Your task to perform on an android device: snooze an email in the gmail app Image 0: 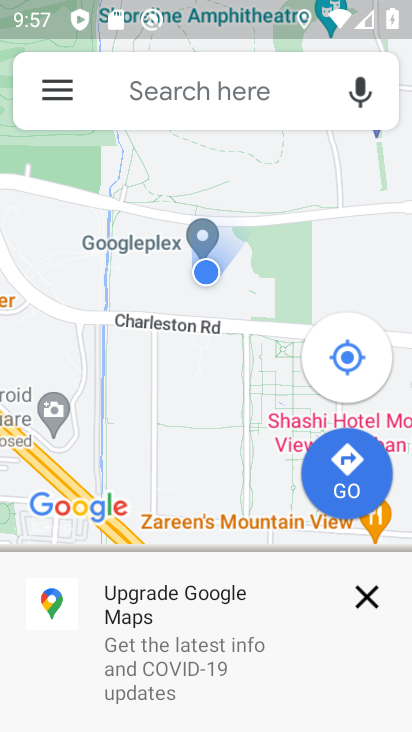
Step 0: press home button
Your task to perform on an android device: snooze an email in the gmail app Image 1: 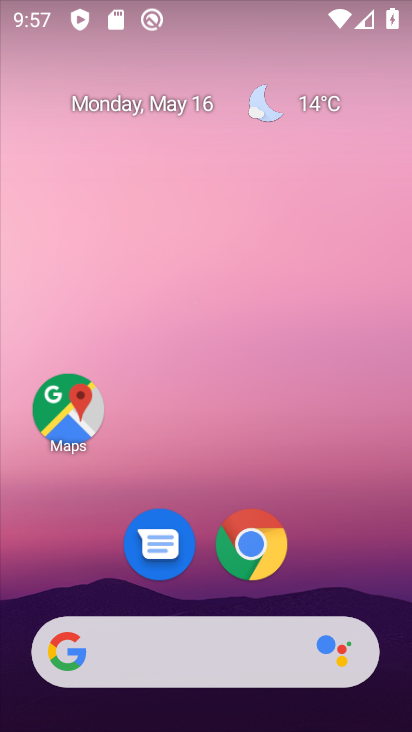
Step 1: drag from (320, 586) to (308, 108)
Your task to perform on an android device: snooze an email in the gmail app Image 2: 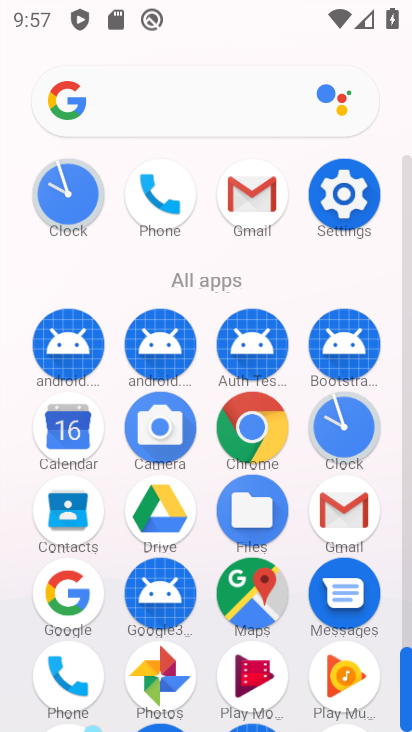
Step 2: click (359, 507)
Your task to perform on an android device: snooze an email in the gmail app Image 3: 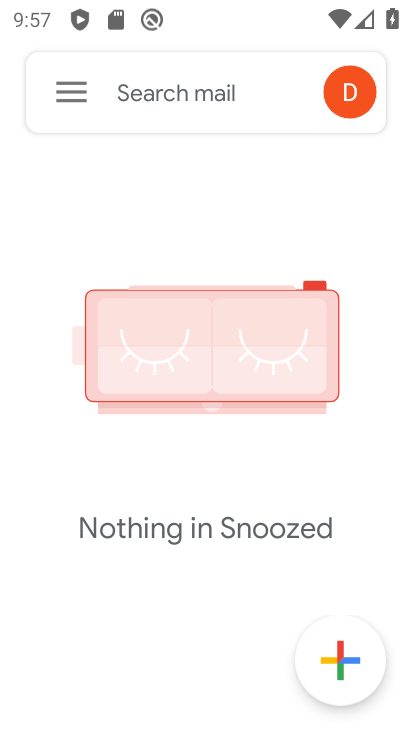
Step 3: click (74, 97)
Your task to perform on an android device: snooze an email in the gmail app Image 4: 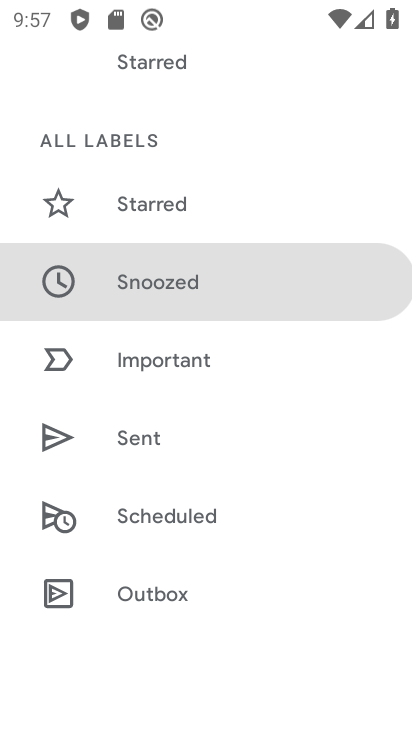
Step 4: drag from (205, 141) to (203, 545)
Your task to perform on an android device: snooze an email in the gmail app Image 5: 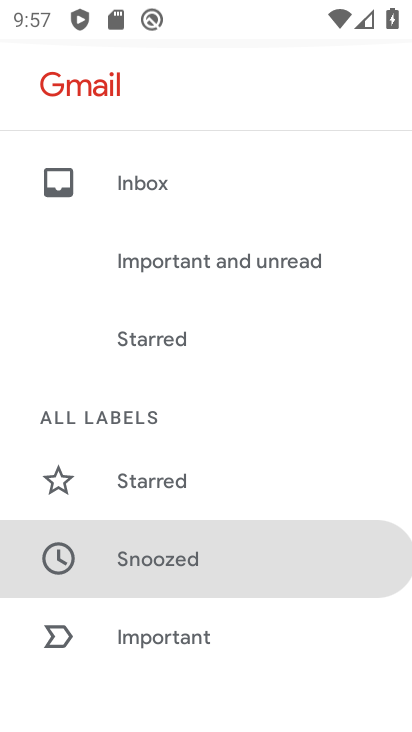
Step 5: click (135, 180)
Your task to perform on an android device: snooze an email in the gmail app Image 6: 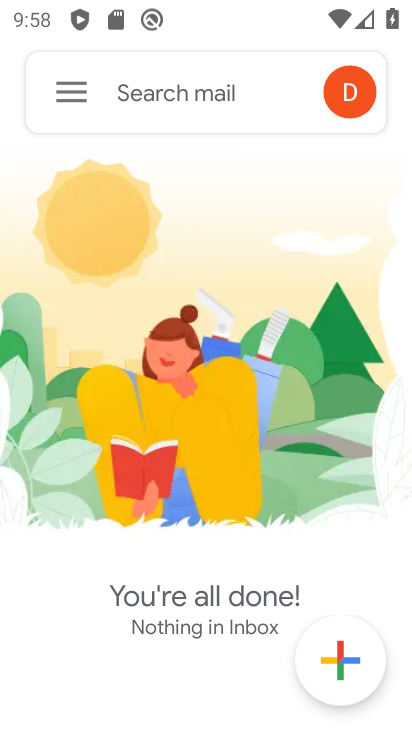
Step 6: task complete